Your task to perform on an android device: turn on bluetooth scan Image 0: 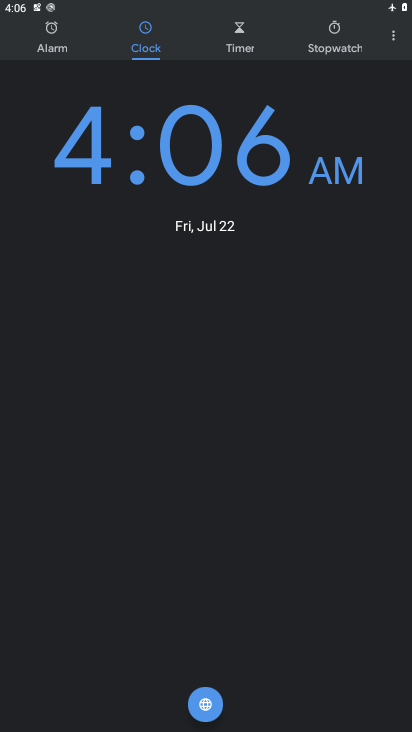
Step 0: press home button
Your task to perform on an android device: turn on bluetooth scan Image 1: 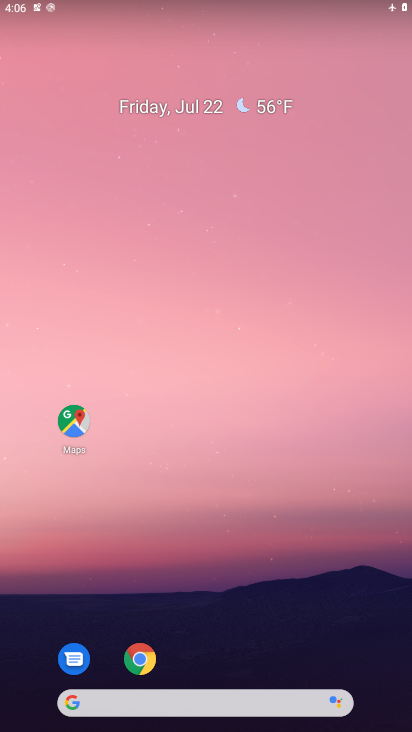
Step 1: drag from (239, 651) to (239, 103)
Your task to perform on an android device: turn on bluetooth scan Image 2: 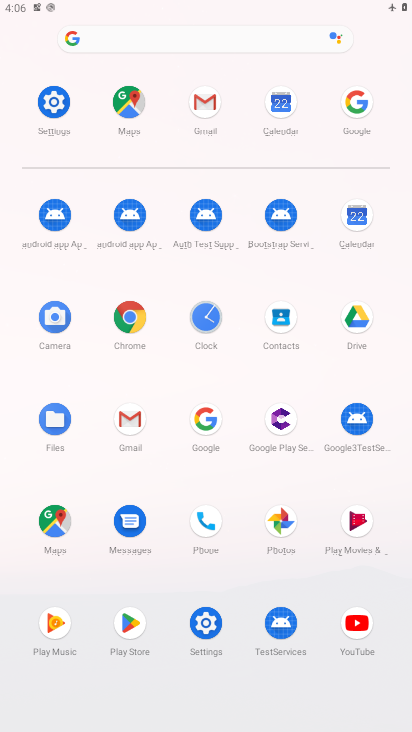
Step 2: click (53, 109)
Your task to perform on an android device: turn on bluetooth scan Image 3: 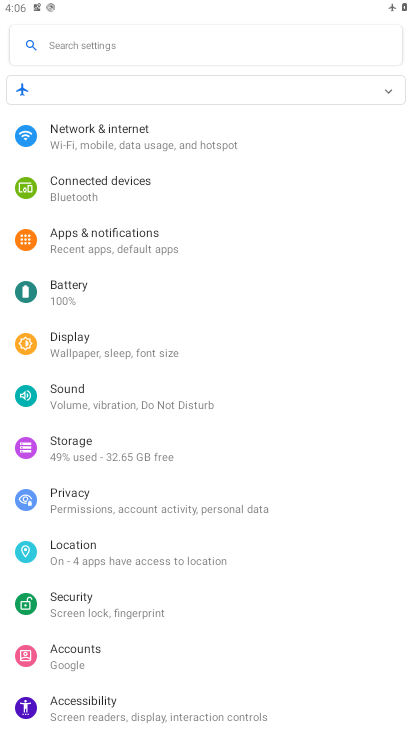
Step 3: click (68, 554)
Your task to perform on an android device: turn on bluetooth scan Image 4: 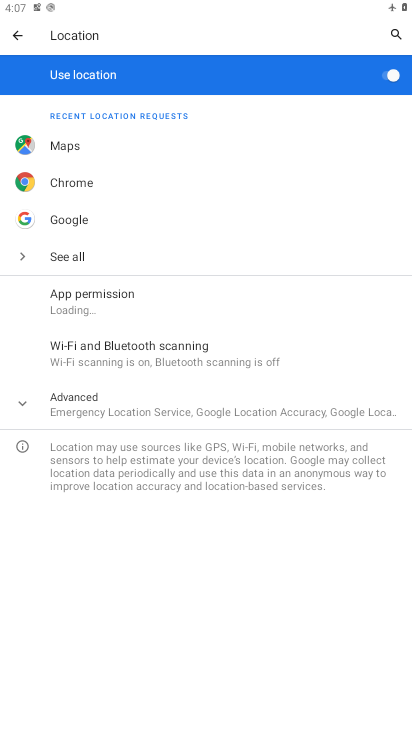
Step 4: click (99, 347)
Your task to perform on an android device: turn on bluetooth scan Image 5: 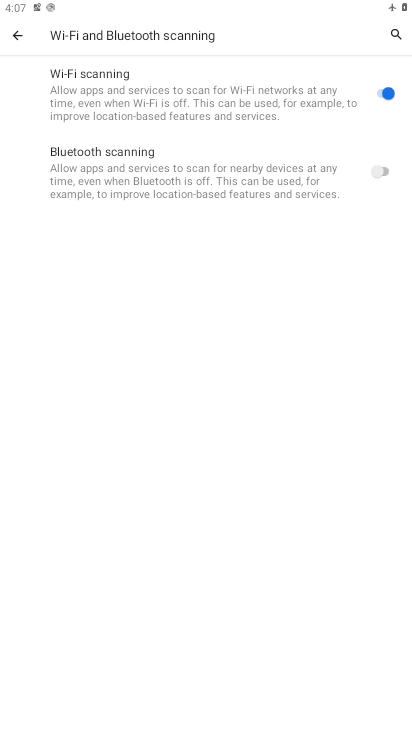
Step 5: click (382, 165)
Your task to perform on an android device: turn on bluetooth scan Image 6: 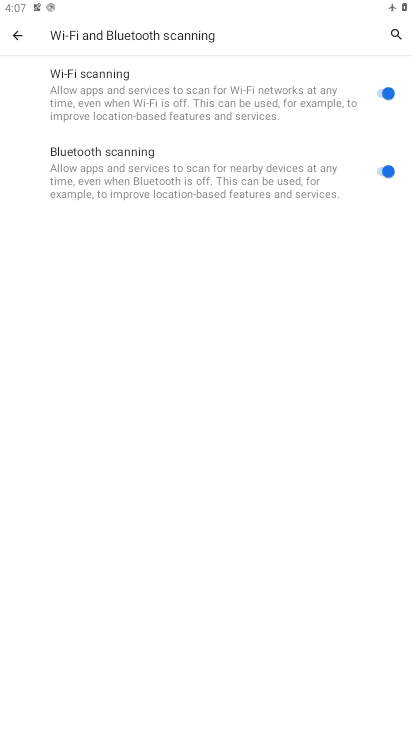
Step 6: task complete